Your task to perform on an android device: Open maps Image 0: 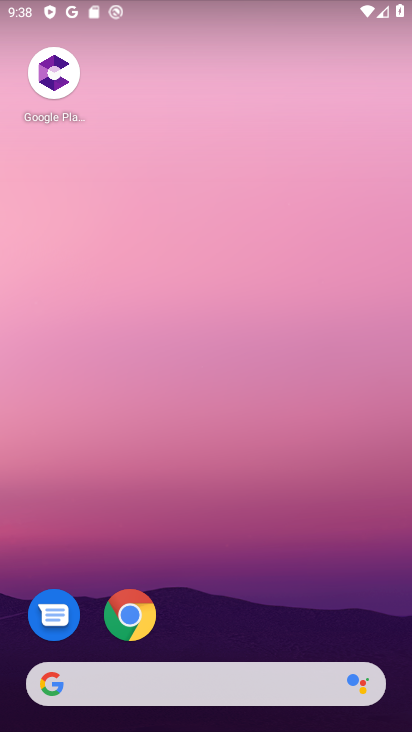
Step 0: press home button
Your task to perform on an android device: Open maps Image 1: 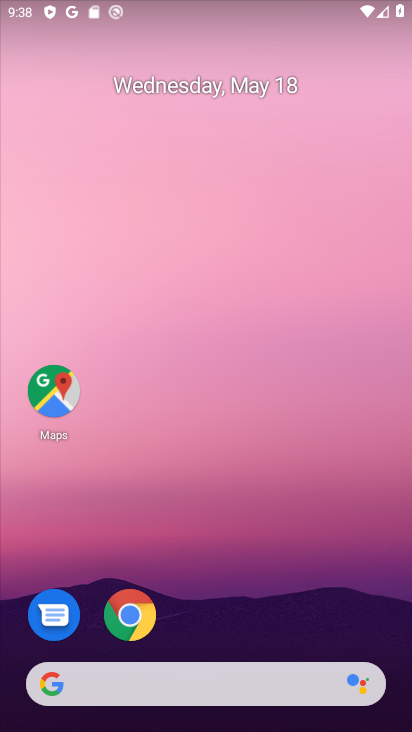
Step 1: click (37, 380)
Your task to perform on an android device: Open maps Image 2: 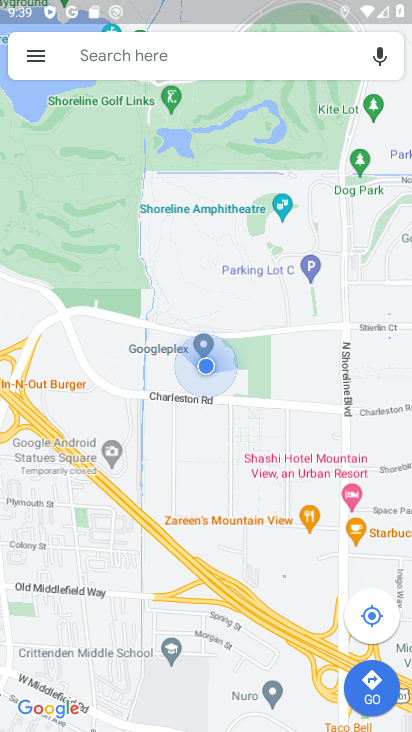
Step 2: task complete